Your task to perform on an android device: turn off location history Image 0: 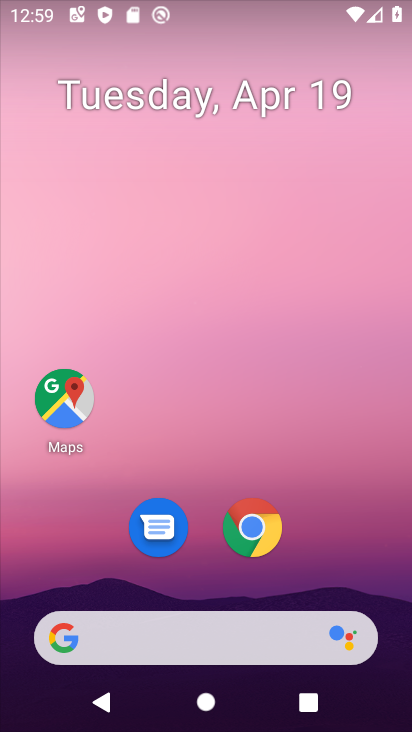
Step 0: drag from (310, 572) to (317, 113)
Your task to perform on an android device: turn off location history Image 1: 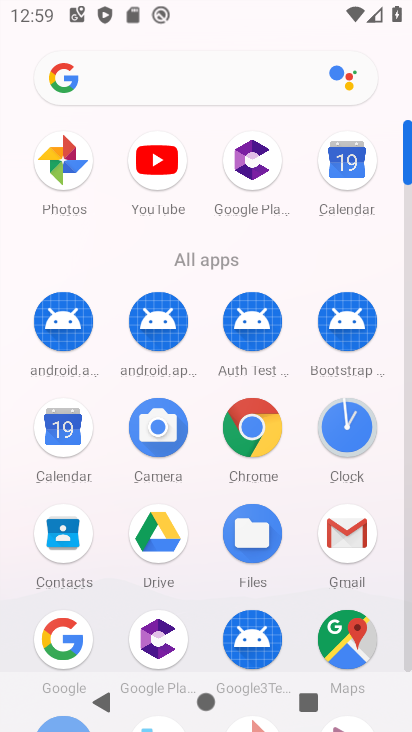
Step 1: click (349, 633)
Your task to perform on an android device: turn off location history Image 2: 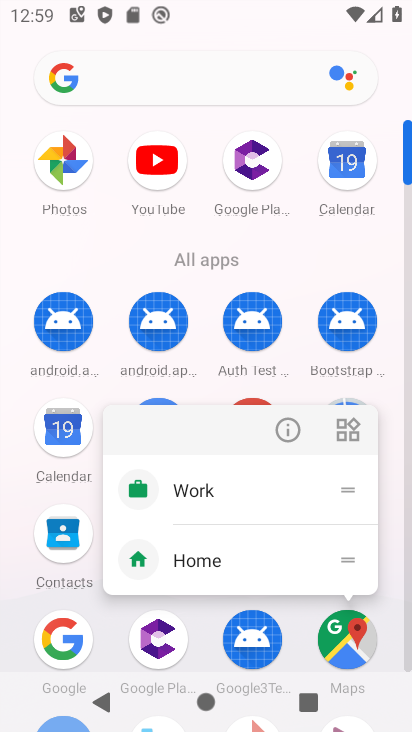
Step 2: click (354, 637)
Your task to perform on an android device: turn off location history Image 3: 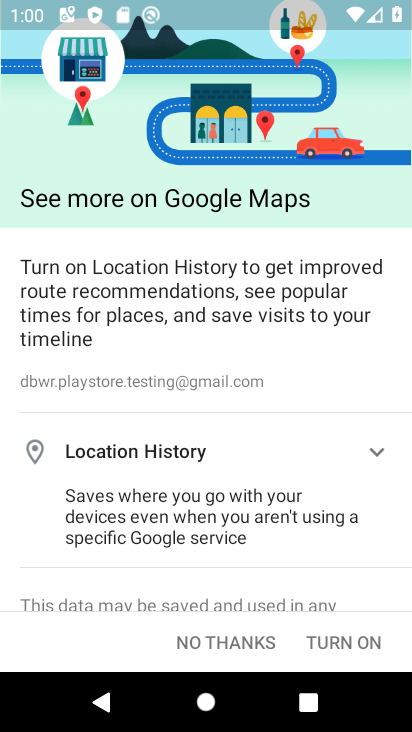
Step 3: click (232, 636)
Your task to perform on an android device: turn off location history Image 4: 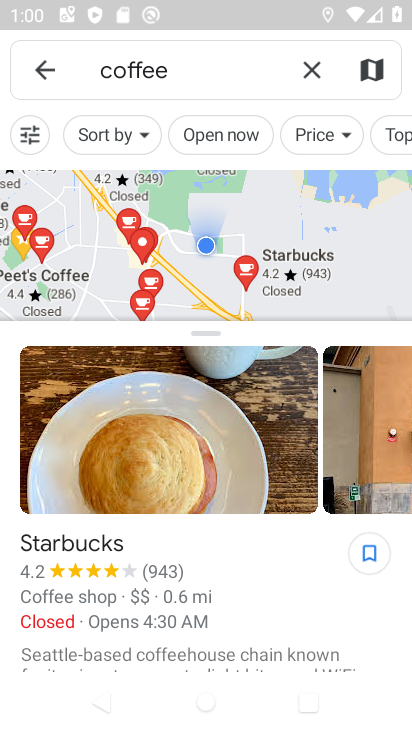
Step 4: click (43, 66)
Your task to perform on an android device: turn off location history Image 5: 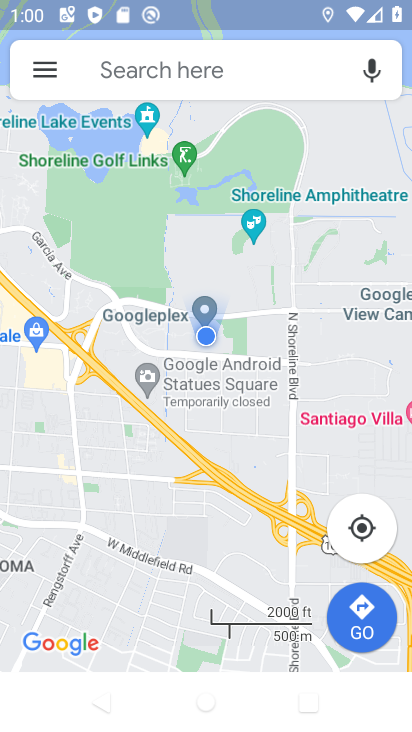
Step 5: click (43, 66)
Your task to perform on an android device: turn off location history Image 6: 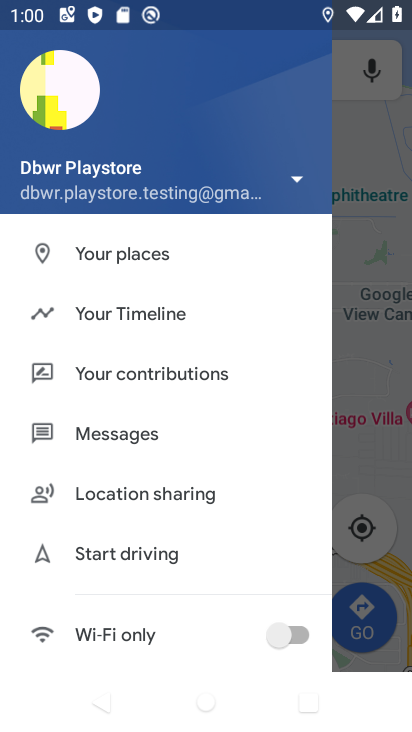
Step 6: click (143, 310)
Your task to perform on an android device: turn off location history Image 7: 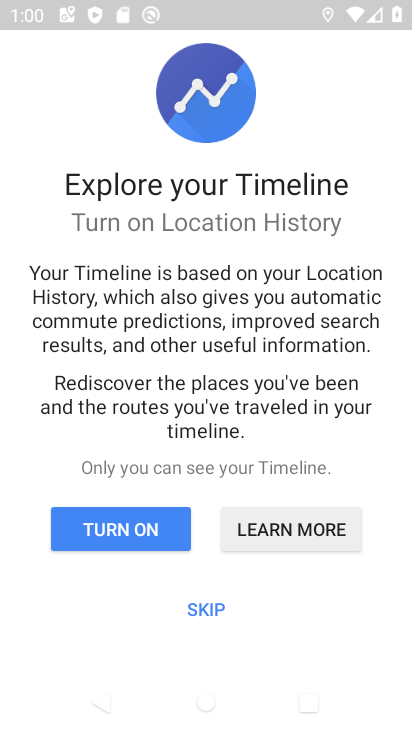
Step 7: click (129, 524)
Your task to perform on an android device: turn off location history Image 8: 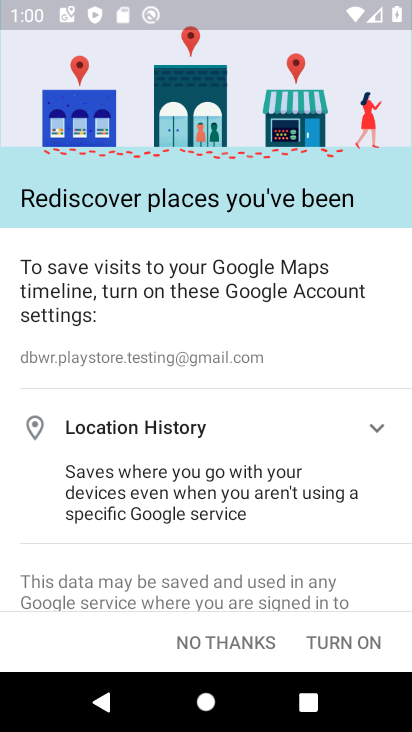
Step 8: click (245, 636)
Your task to perform on an android device: turn off location history Image 9: 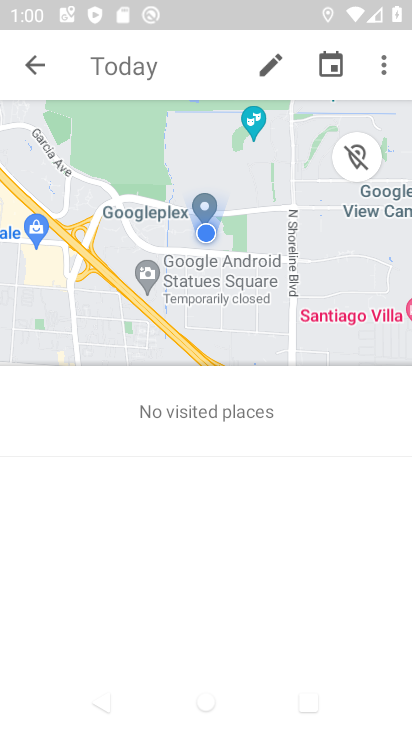
Step 9: click (383, 61)
Your task to perform on an android device: turn off location history Image 10: 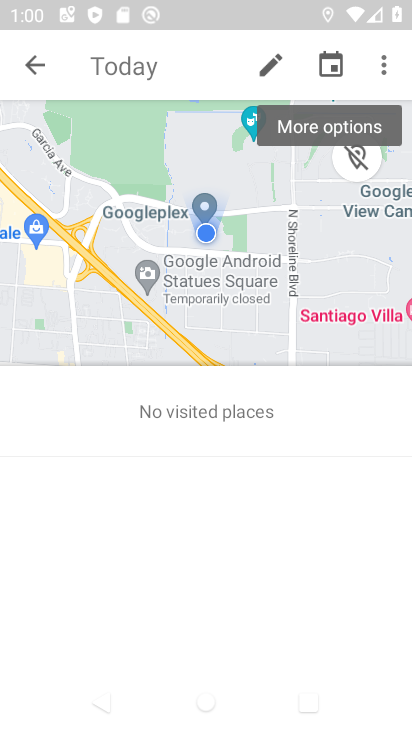
Step 10: click (383, 61)
Your task to perform on an android device: turn off location history Image 11: 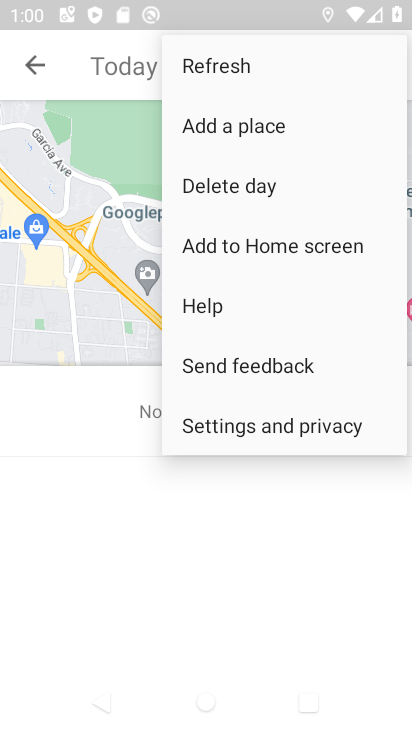
Step 11: click (250, 418)
Your task to perform on an android device: turn off location history Image 12: 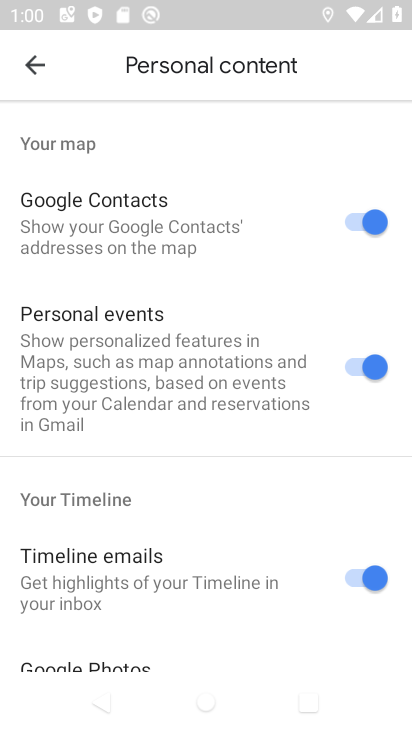
Step 12: drag from (252, 608) to (263, 218)
Your task to perform on an android device: turn off location history Image 13: 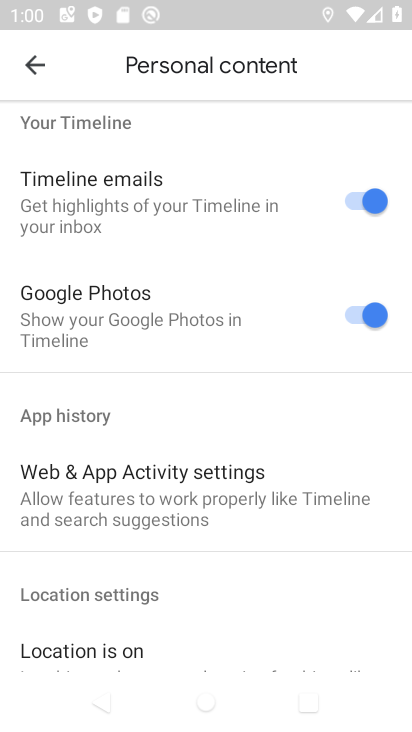
Step 13: drag from (243, 594) to (268, 177)
Your task to perform on an android device: turn off location history Image 14: 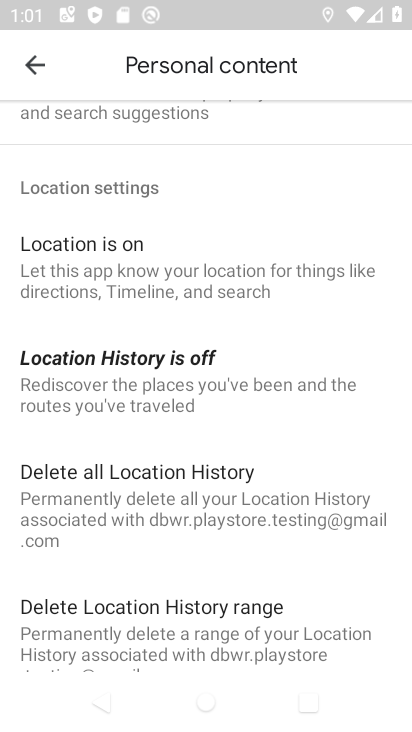
Step 14: click (146, 378)
Your task to perform on an android device: turn off location history Image 15: 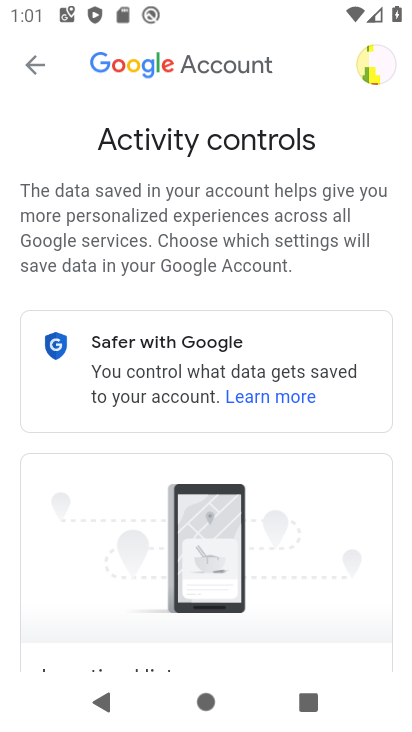
Step 15: task complete